Your task to perform on an android device: Open accessibility settings Image 0: 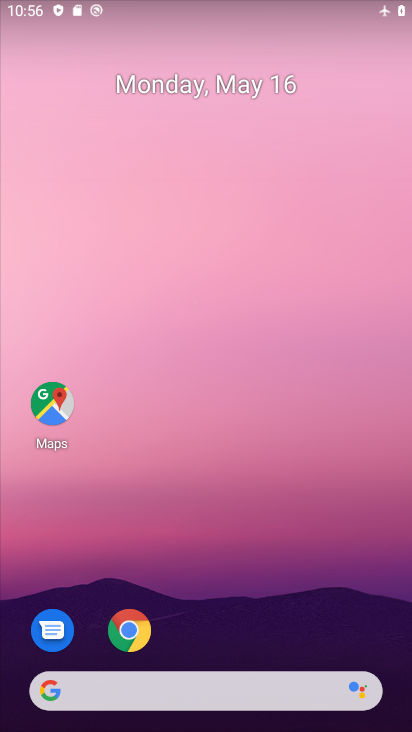
Step 0: drag from (235, 630) to (151, 191)
Your task to perform on an android device: Open accessibility settings Image 1: 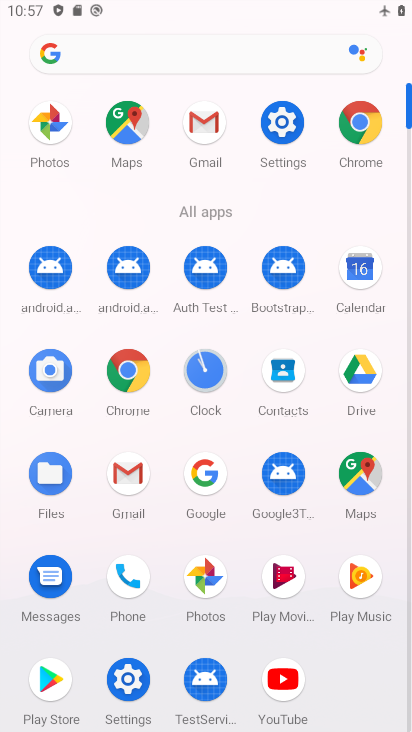
Step 1: click (283, 134)
Your task to perform on an android device: Open accessibility settings Image 2: 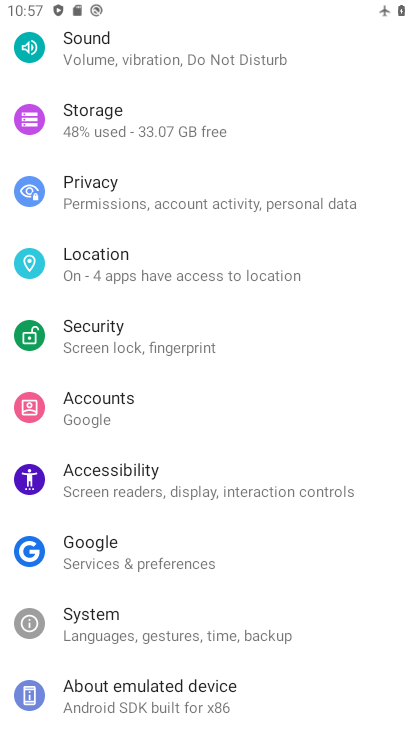
Step 2: click (194, 486)
Your task to perform on an android device: Open accessibility settings Image 3: 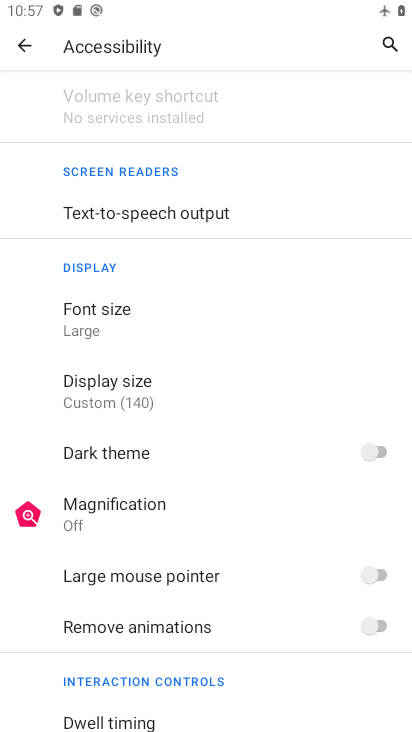
Step 3: task complete